Your task to perform on an android device: Show me recent news Image 0: 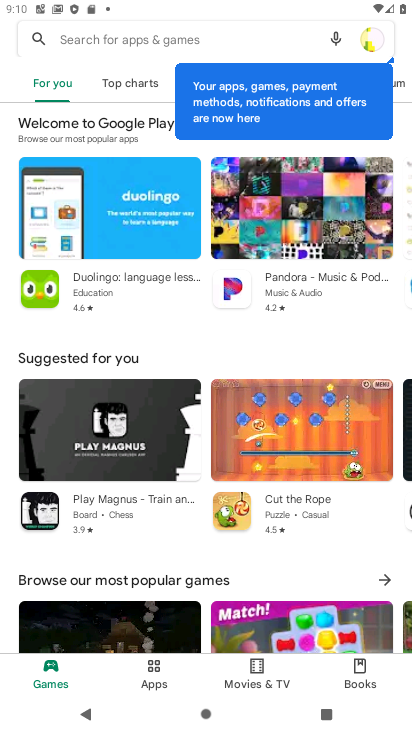
Step 0: press back button
Your task to perform on an android device: Show me recent news Image 1: 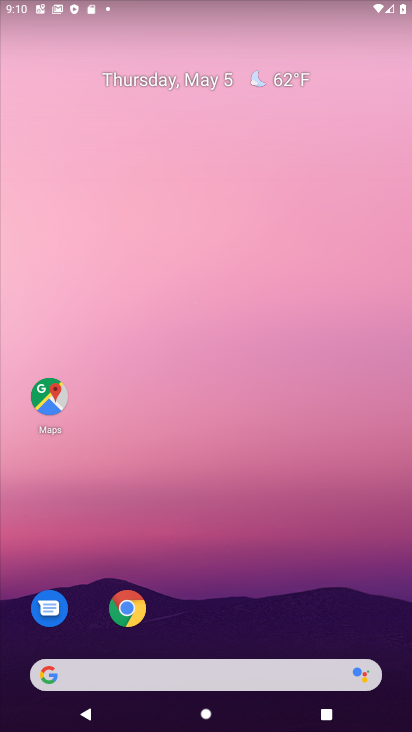
Step 1: drag from (236, 521) to (203, 29)
Your task to perform on an android device: Show me recent news Image 2: 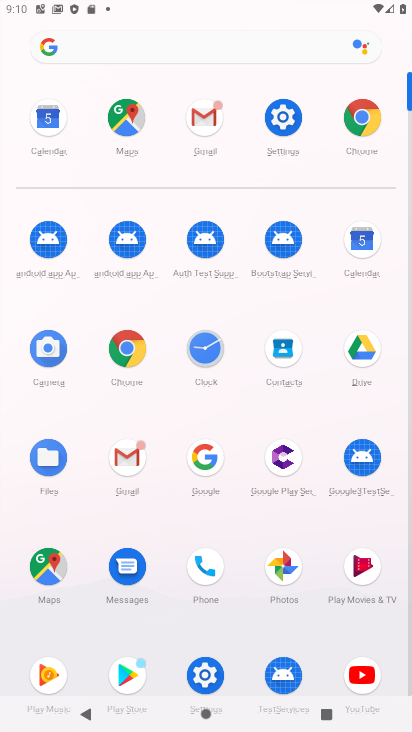
Step 2: drag from (7, 576) to (1, 326)
Your task to perform on an android device: Show me recent news Image 3: 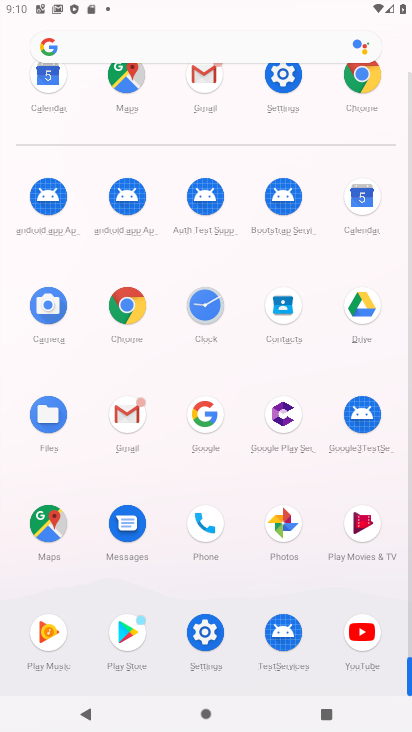
Step 3: click (122, 309)
Your task to perform on an android device: Show me recent news Image 4: 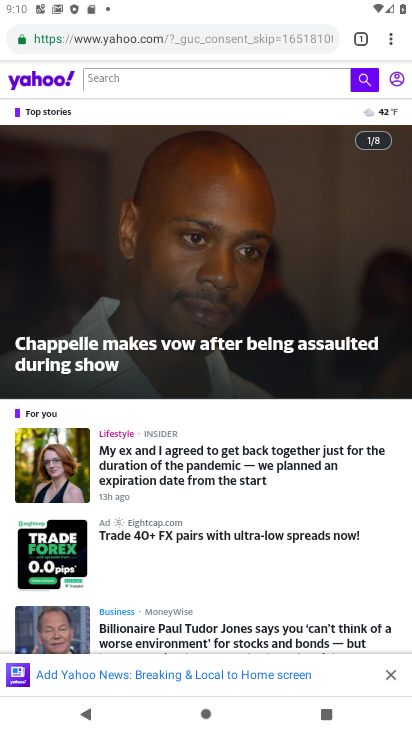
Step 4: click (162, 37)
Your task to perform on an android device: Show me recent news Image 5: 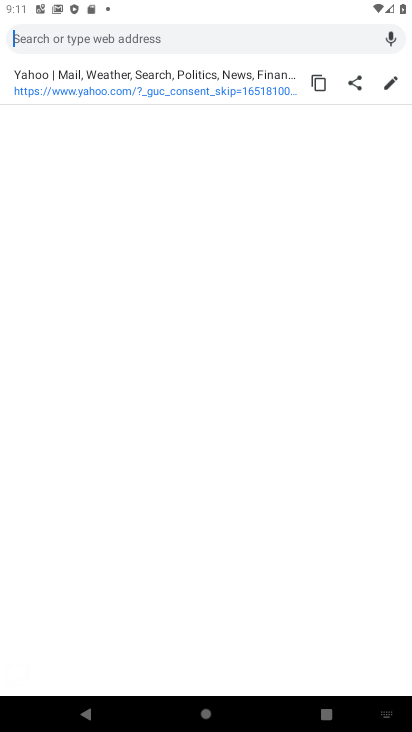
Step 5: type "recent news"
Your task to perform on an android device: Show me recent news Image 6: 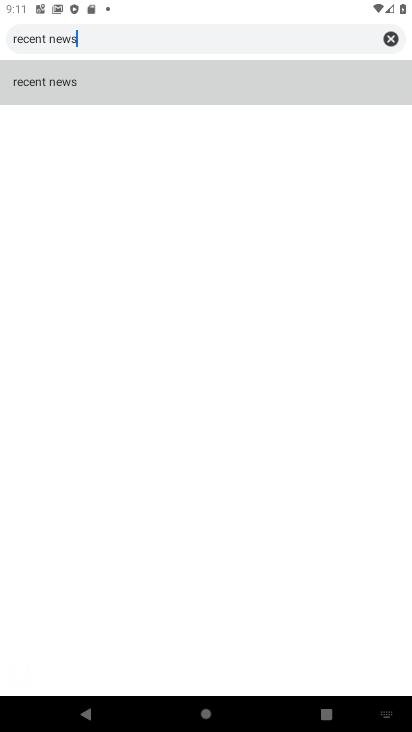
Step 6: type ""
Your task to perform on an android device: Show me recent news Image 7: 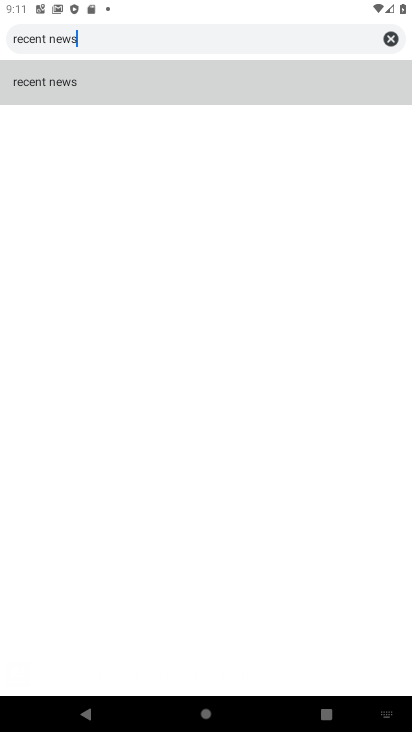
Step 7: click (122, 92)
Your task to perform on an android device: Show me recent news Image 8: 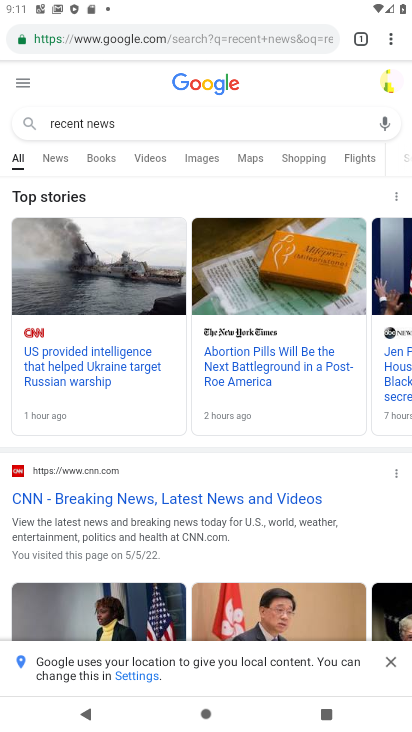
Step 8: task complete